Your task to perform on an android device: Open my contact list Image 0: 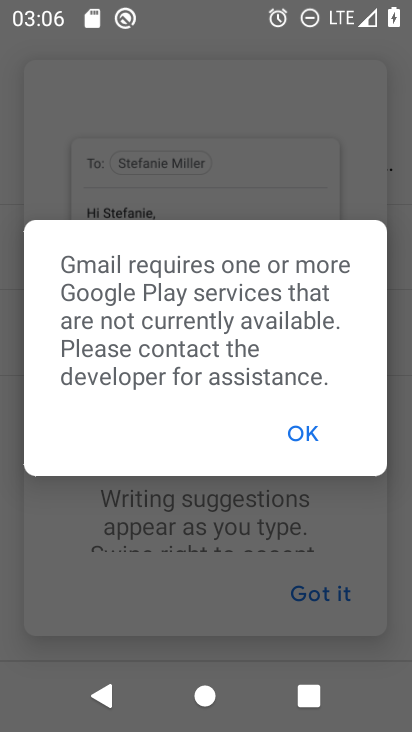
Step 0: press home button
Your task to perform on an android device: Open my contact list Image 1: 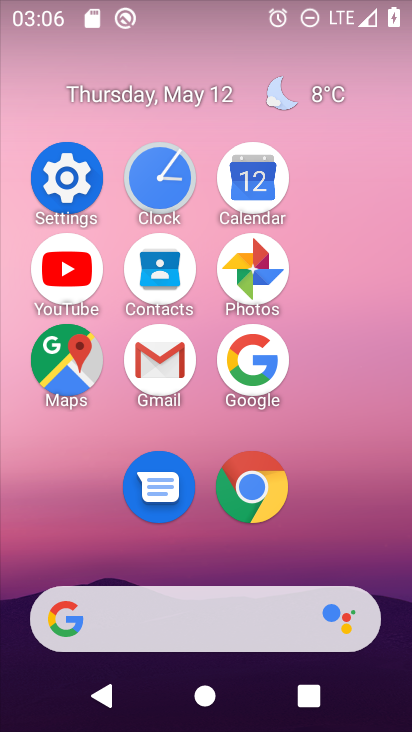
Step 1: click (157, 280)
Your task to perform on an android device: Open my contact list Image 2: 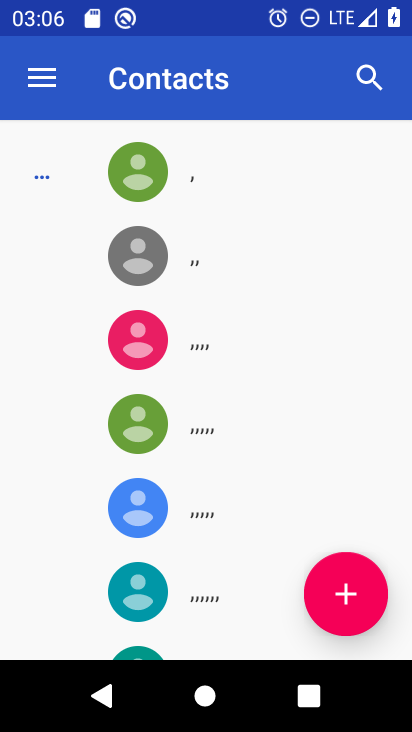
Step 2: task complete